Your task to perform on an android device: Open Maps and search for coffee Image 0: 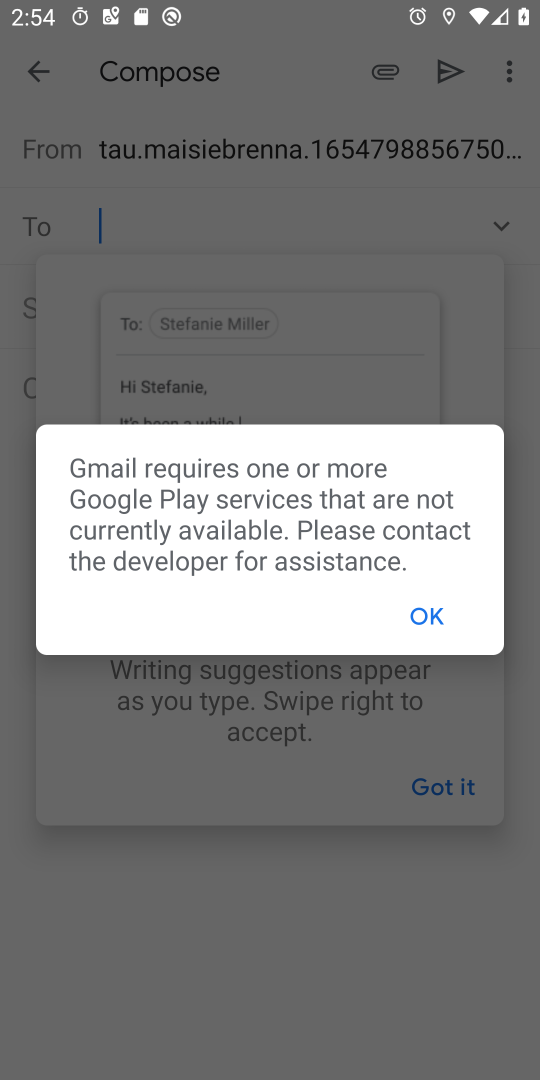
Step 0: press home button
Your task to perform on an android device: Open Maps and search for coffee Image 1: 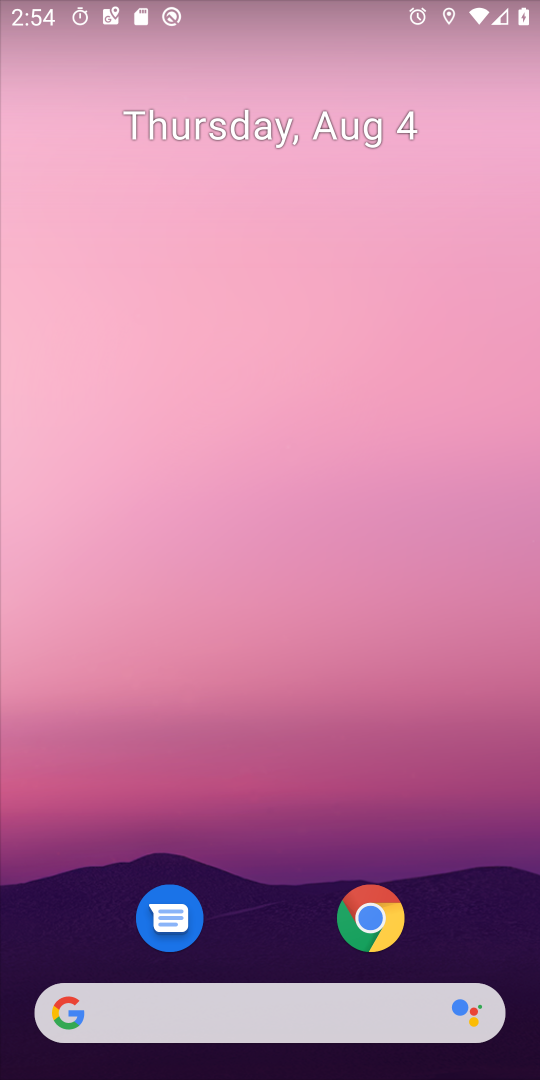
Step 1: drag from (279, 913) to (279, 231)
Your task to perform on an android device: Open Maps and search for coffee Image 2: 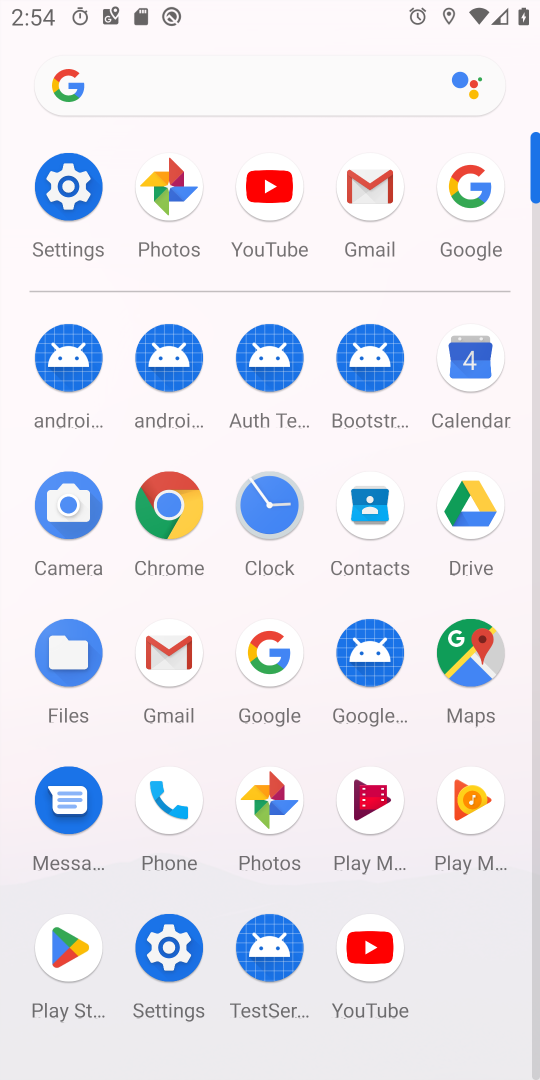
Step 2: click (459, 680)
Your task to perform on an android device: Open Maps and search for coffee Image 3: 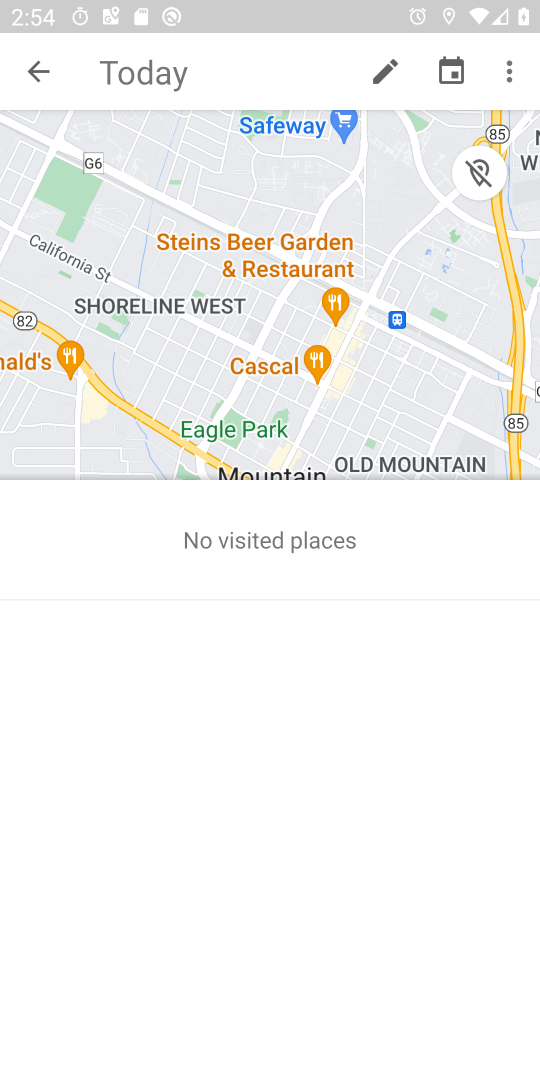
Step 3: click (40, 63)
Your task to perform on an android device: Open Maps and search for coffee Image 4: 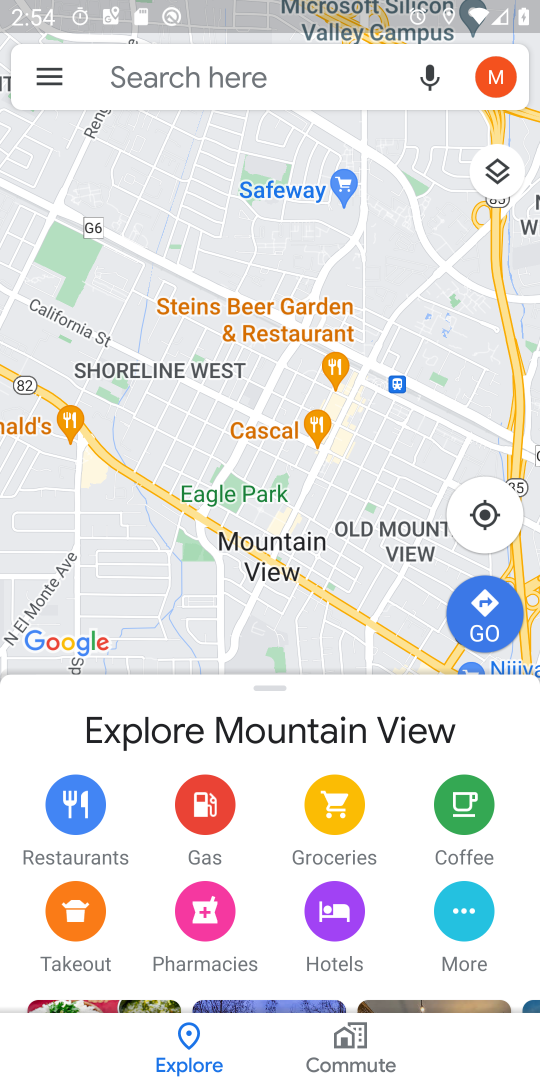
Step 4: click (154, 66)
Your task to perform on an android device: Open Maps and search for coffee Image 5: 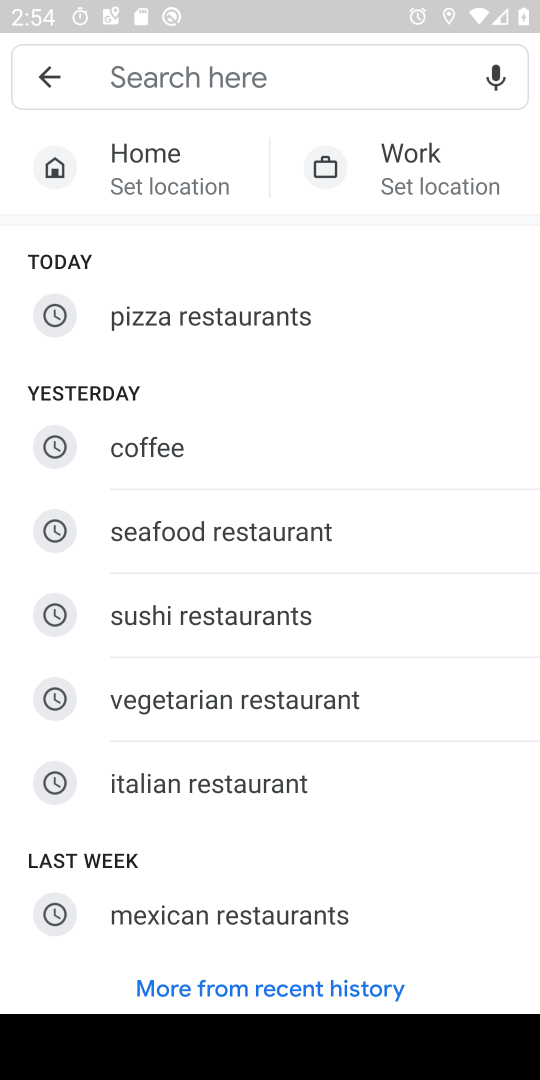
Step 5: click (153, 449)
Your task to perform on an android device: Open Maps and search for coffee Image 6: 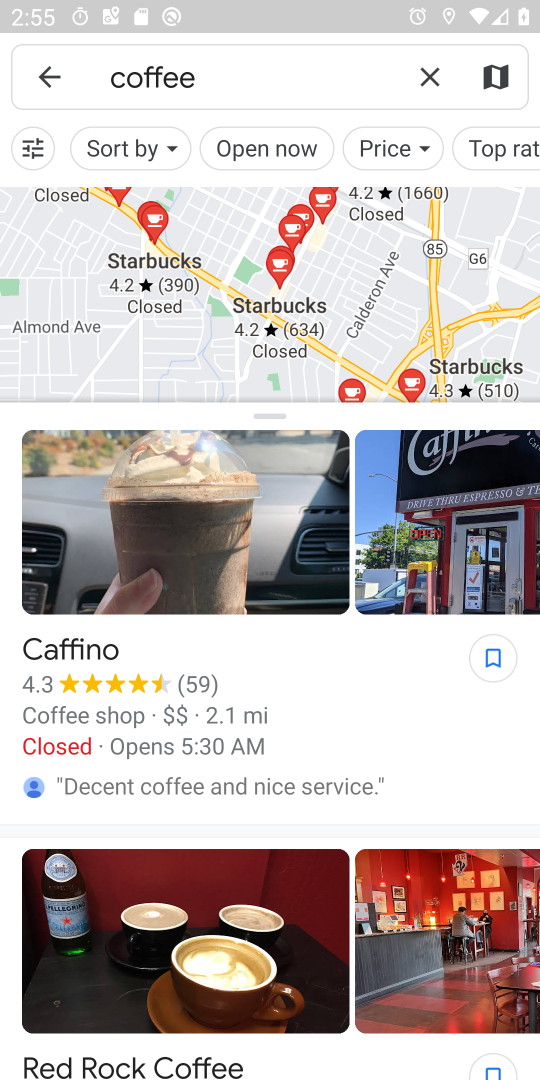
Step 6: task complete